Your task to perform on an android device: turn off notifications in google photos Image 0: 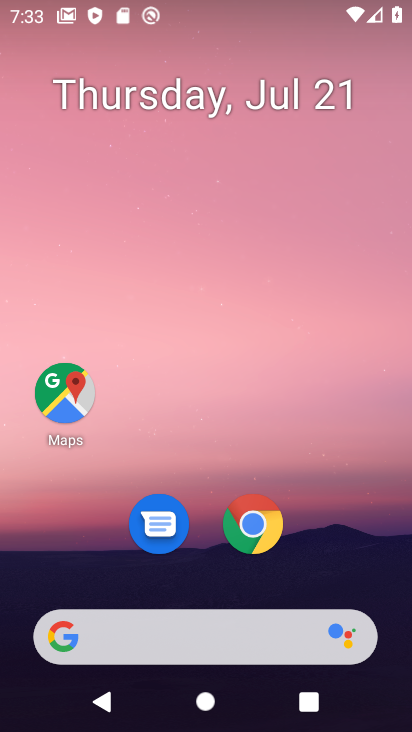
Step 0: press home button
Your task to perform on an android device: turn off notifications in google photos Image 1: 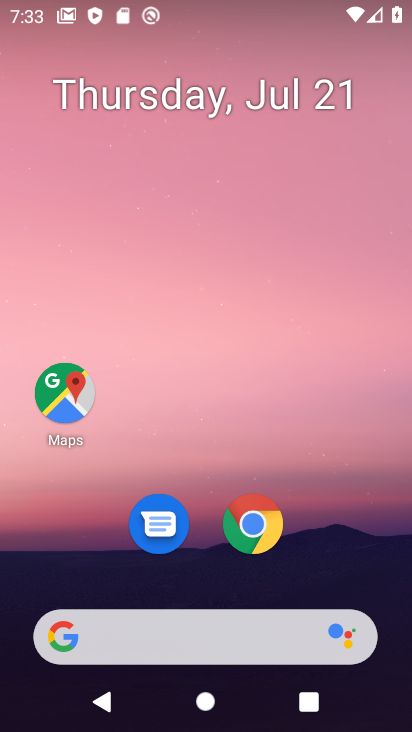
Step 1: drag from (209, 647) to (351, 204)
Your task to perform on an android device: turn off notifications in google photos Image 2: 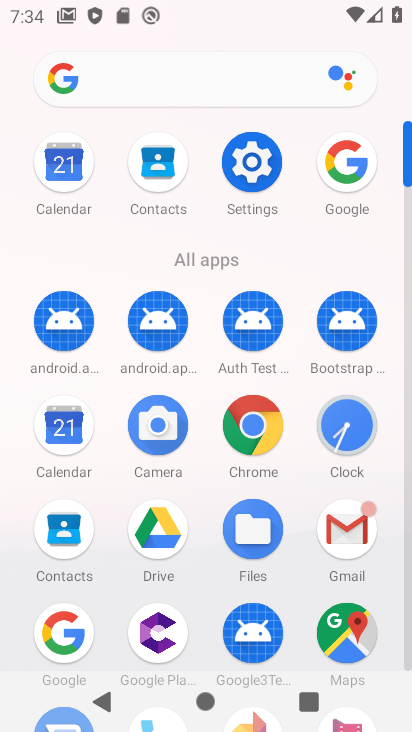
Step 2: drag from (207, 575) to (345, 220)
Your task to perform on an android device: turn off notifications in google photos Image 3: 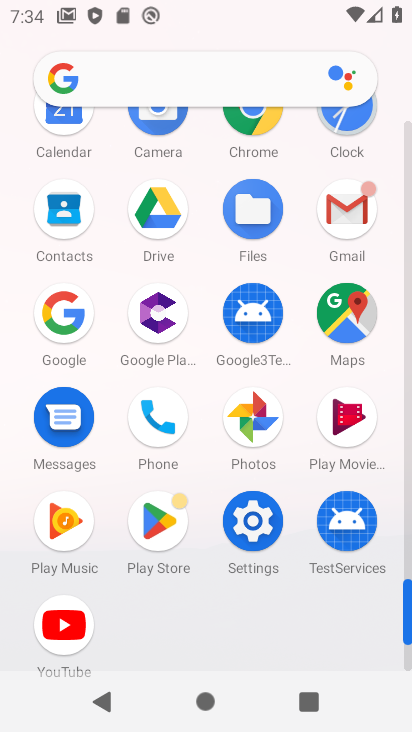
Step 3: click (263, 423)
Your task to perform on an android device: turn off notifications in google photos Image 4: 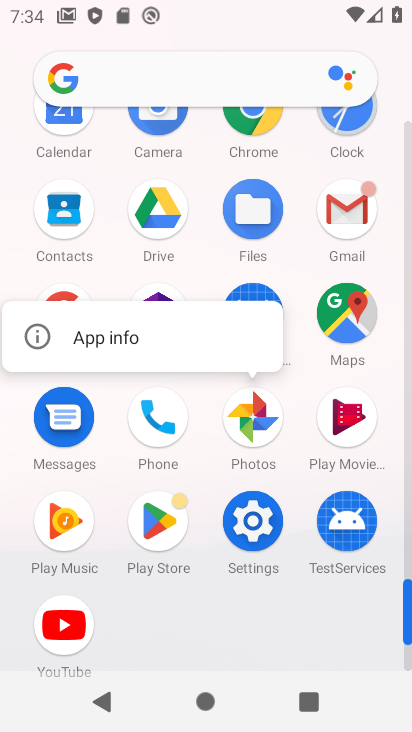
Step 4: click (257, 426)
Your task to perform on an android device: turn off notifications in google photos Image 5: 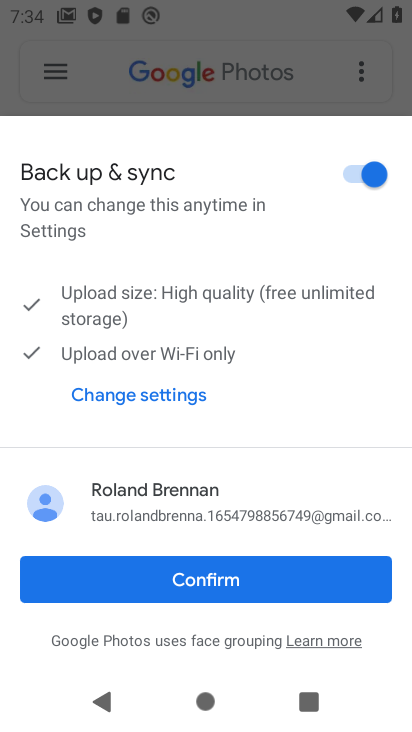
Step 5: click (199, 580)
Your task to perform on an android device: turn off notifications in google photos Image 6: 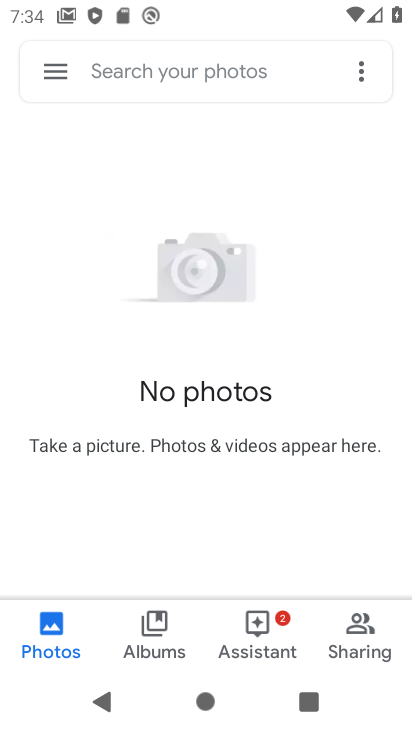
Step 6: click (56, 74)
Your task to perform on an android device: turn off notifications in google photos Image 7: 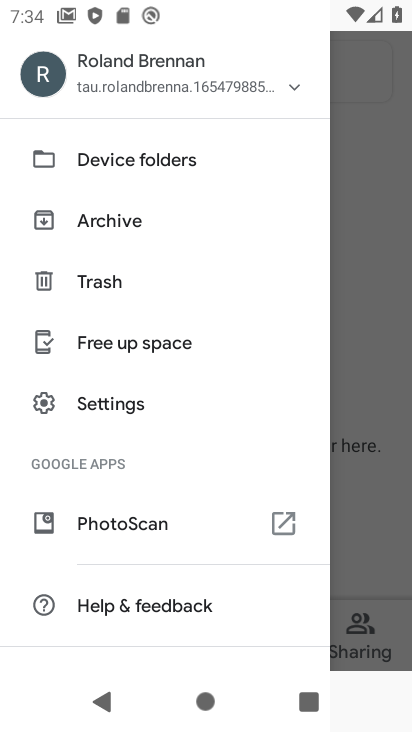
Step 7: click (128, 400)
Your task to perform on an android device: turn off notifications in google photos Image 8: 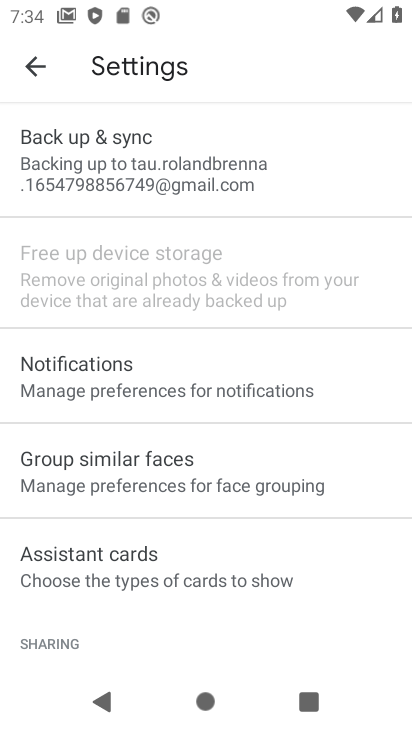
Step 8: click (153, 382)
Your task to perform on an android device: turn off notifications in google photos Image 9: 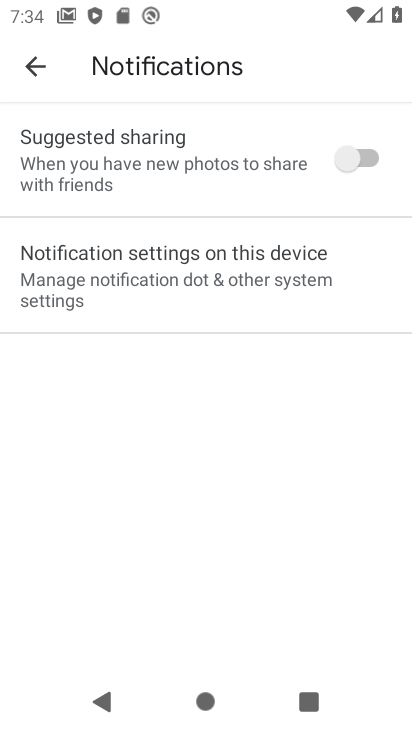
Step 9: click (195, 281)
Your task to perform on an android device: turn off notifications in google photos Image 10: 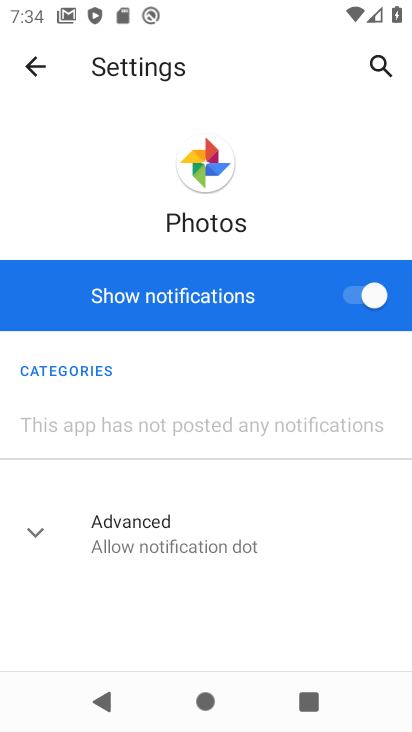
Step 10: click (352, 298)
Your task to perform on an android device: turn off notifications in google photos Image 11: 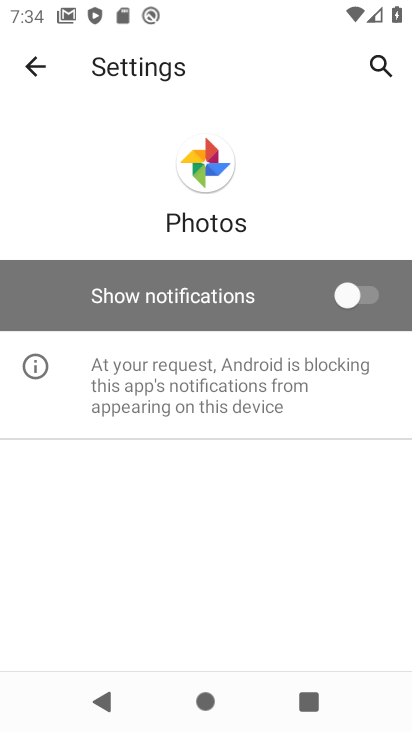
Step 11: task complete